Your task to perform on an android device: turn notification dots on Image 0: 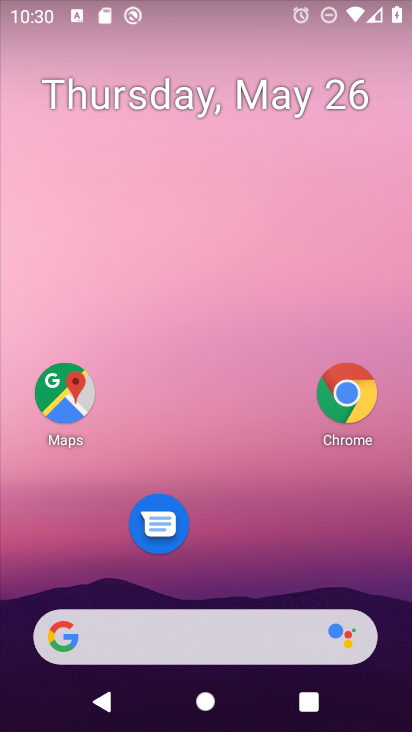
Step 0: drag from (265, 500) to (253, 24)
Your task to perform on an android device: turn notification dots on Image 1: 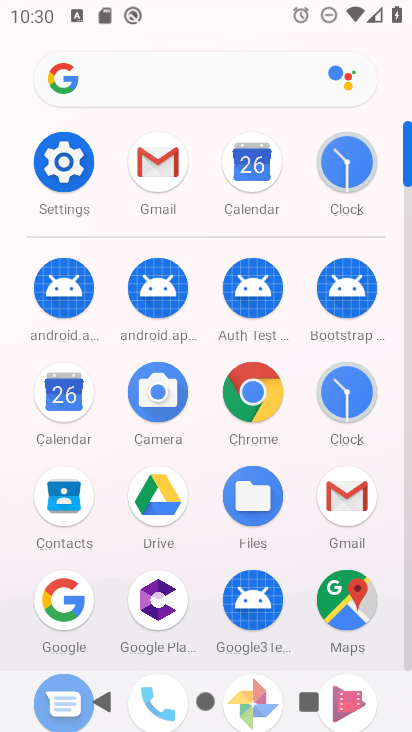
Step 1: click (70, 139)
Your task to perform on an android device: turn notification dots on Image 2: 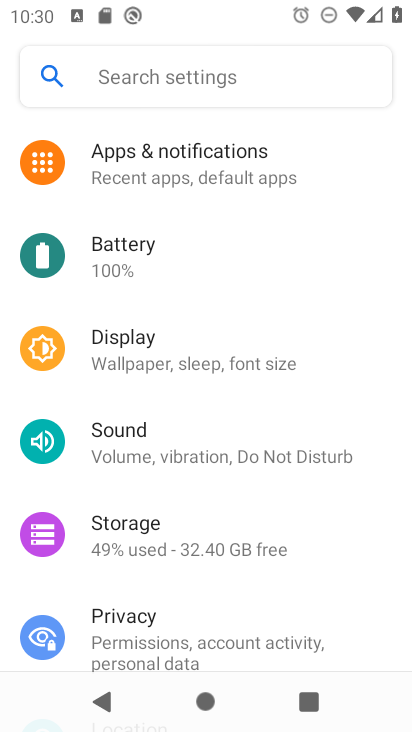
Step 2: click (263, 177)
Your task to perform on an android device: turn notification dots on Image 3: 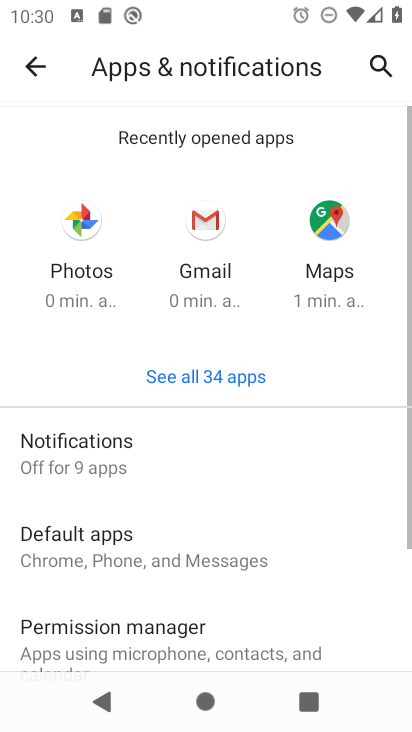
Step 3: drag from (258, 530) to (291, 323)
Your task to perform on an android device: turn notification dots on Image 4: 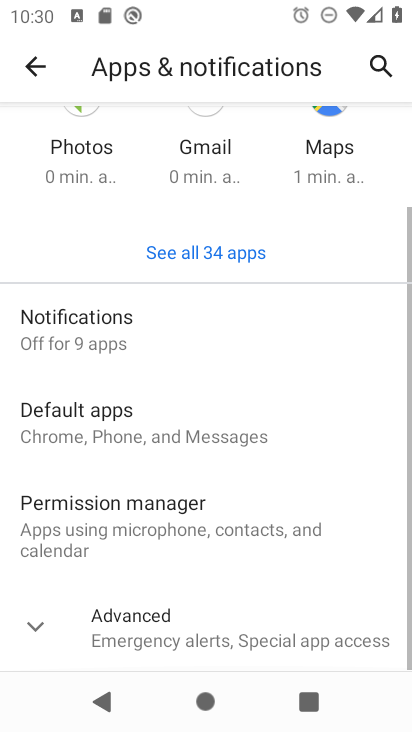
Step 4: click (262, 322)
Your task to perform on an android device: turn notification dots on Image 5: 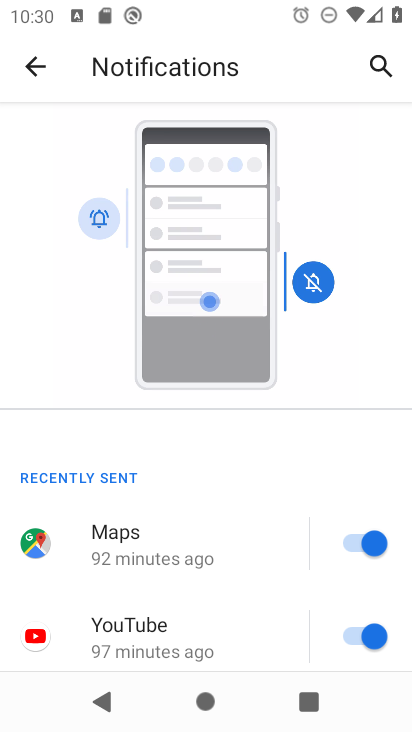
Step 5: drag from (239, 548) to (291, 46)
Your task to perform on an android device: turn notification dots on Image 6: 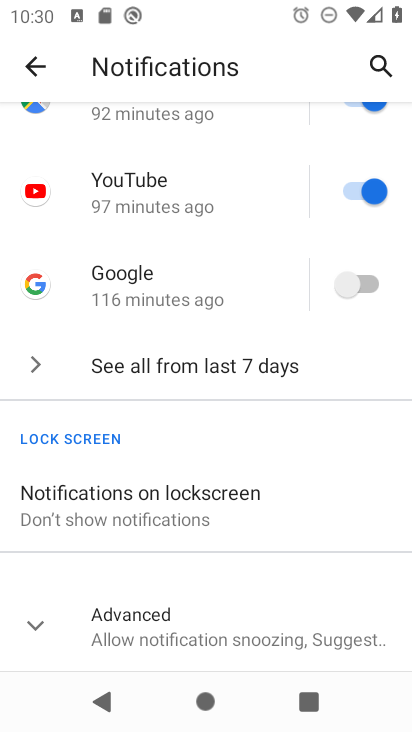
Step 6: click (25, 619)
Your task to perform on an android device: turn notification dots on Image 7: 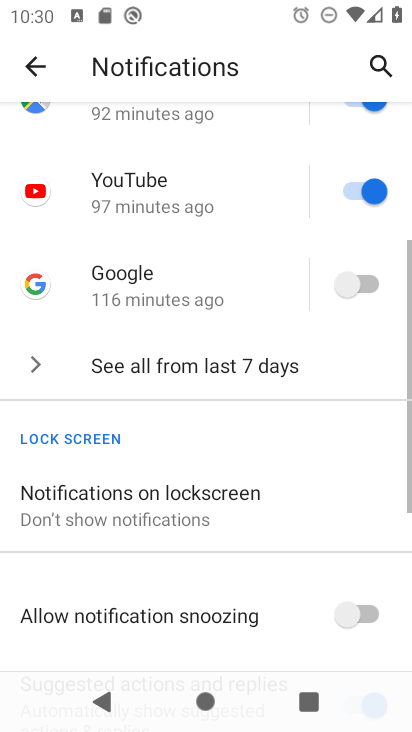
Step 7: task complete